Your task to perform on an android device: Open Maps and search for coffee Image 0: 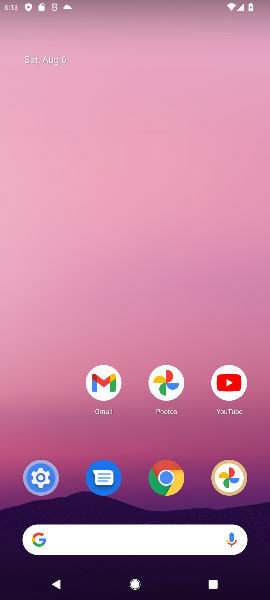
Step 0: press home button
Your task to perform on an android device: Open Maps and search for coffee Image 1: 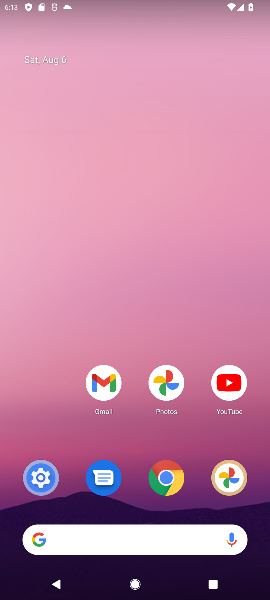
Step 1: drag from (229, 480) to (120, 499)
Your task to perform on an android device: Open Maps and search for coffee Image 2: 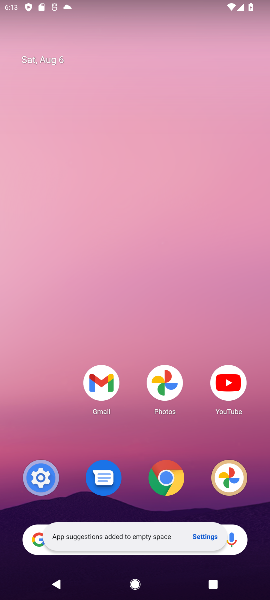
Step 2: drag from (137, 512) to (152, 48)
Your task to perform on an android device: Open Maps and search for coffee Image 3: 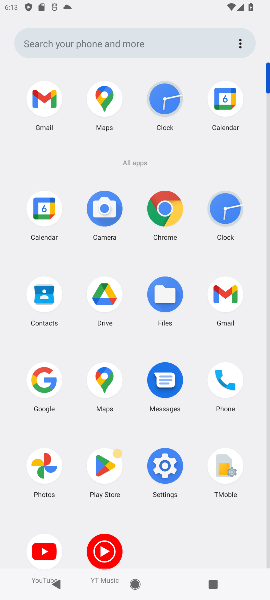
Step 3: click (105, 103)
Your task to perform on an android device: Open Maps and search for coffee Image 4: 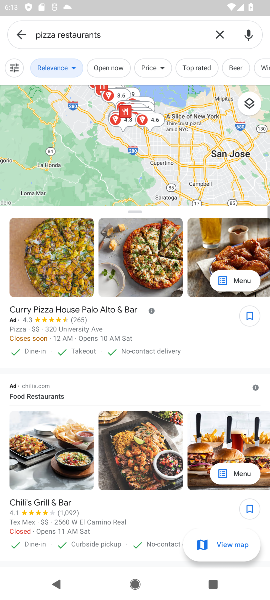
Step 4: click (19, 29)
Your task to perform on an android device: Open Maps and search for coffee Image 5: 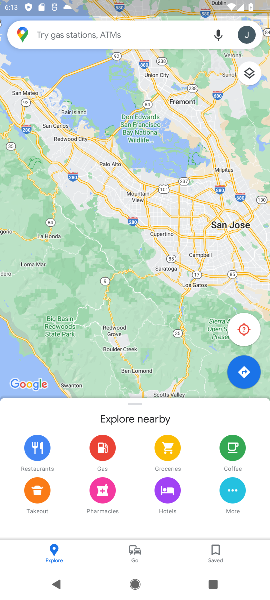
Step 5: click (86, 29)
Your task to perform on an android device: Open Maps and search for coffee Image 6: 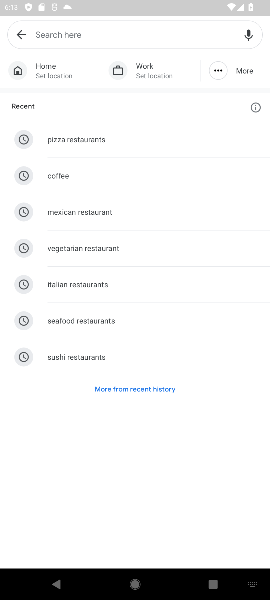
Step 6: click (54, 180)
Your task to perform on an android device: Open Maps and search for coffee Image 7: 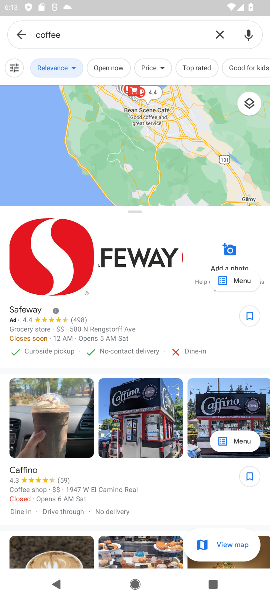
Step 7: task complete